Your task to perform on an android device: Open wifi settings Image 0: 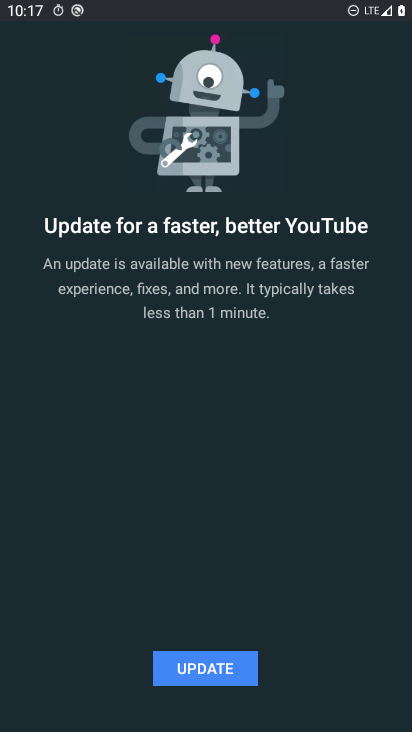
Step 0: press home button
Your task to perform on an android device: Open wifi settings Image 1: 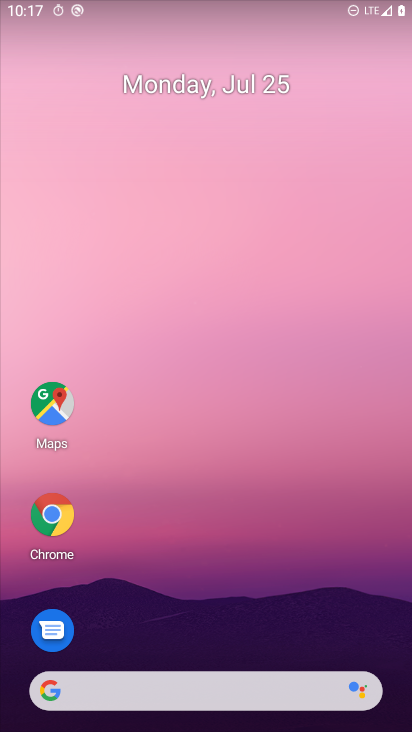
Step 1: click (120, 265)
Your task to perform on an android device: Open wifi settings Image 2: 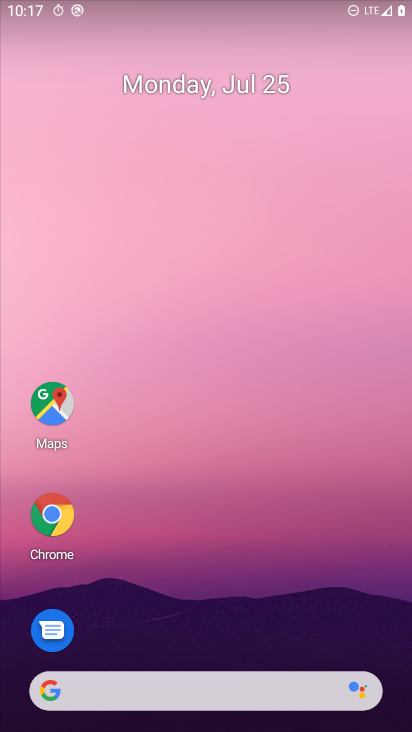
Step 2: drag from (19, 707) to (168, 149)
Your task to perform on an android device: Open wifi settings Image 3: 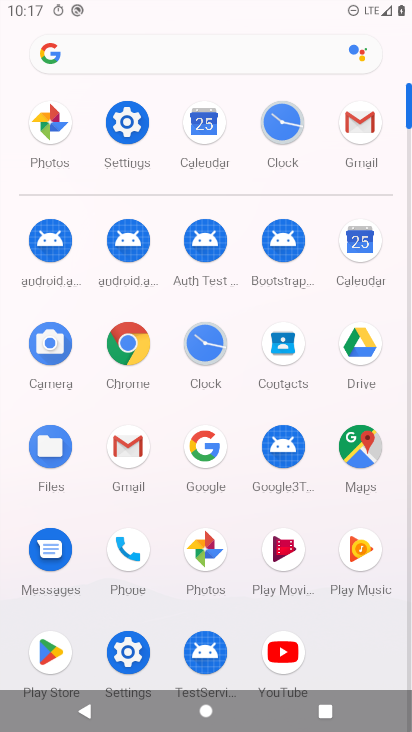
Step 3: click (126, 654)
Your task to perform on an android device: Open wifi settings Image 4: 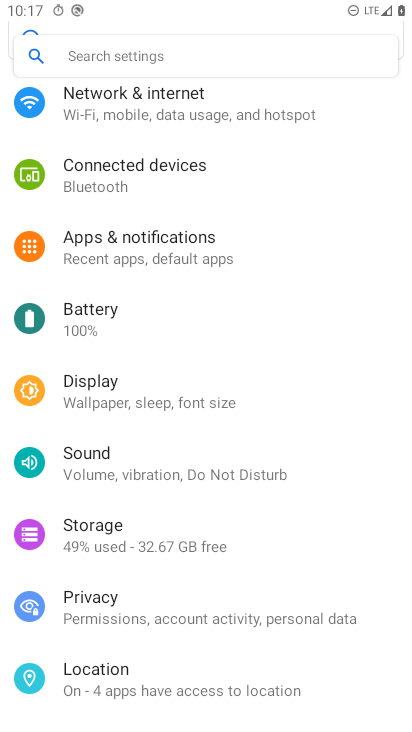
Step 4: drag from (265, 113) to (264, 514)
Your task to perform on an android device: Open wifi settings Image 5: 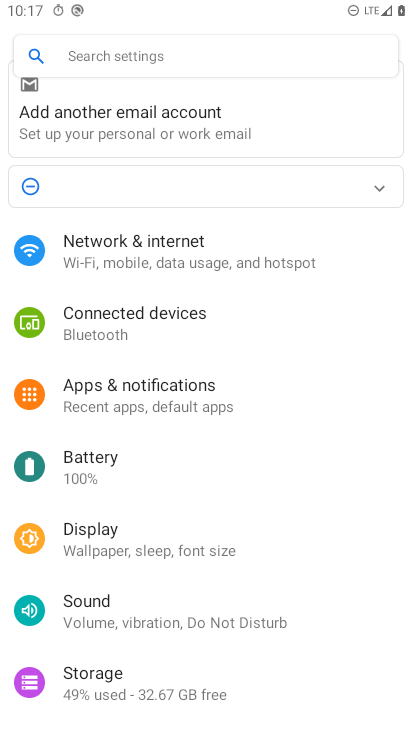
Step 5: click (225, 266)
Your task to perform on an android device: Open wifi settings Image 6: 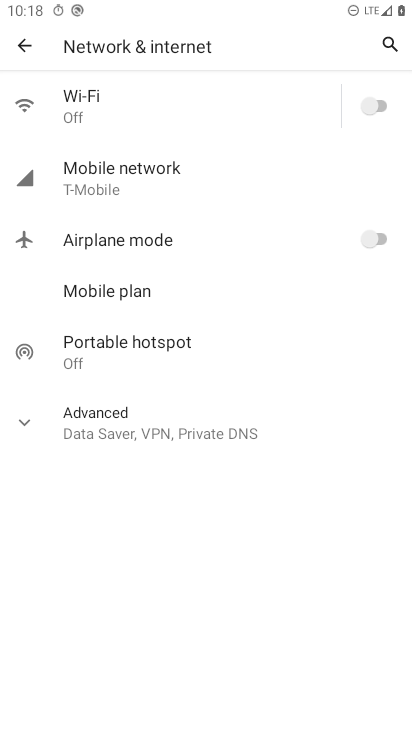
Step 6: click (124, 106)
Your task to perform on an android device: Open wifi settings Image 7: 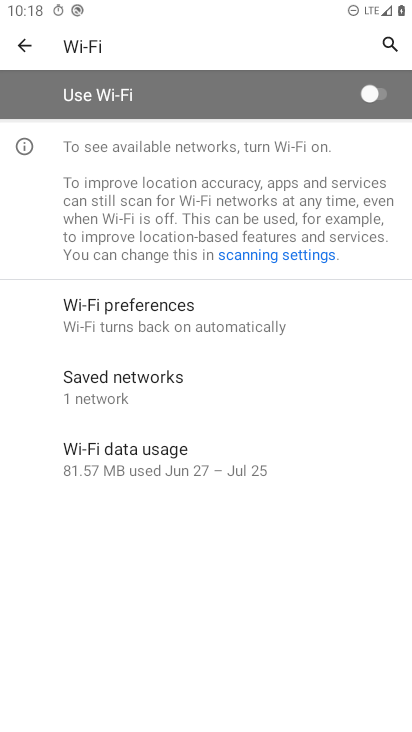
Step 7: task complete